Your task to perform on an android device: turn notification dots on Image 0: 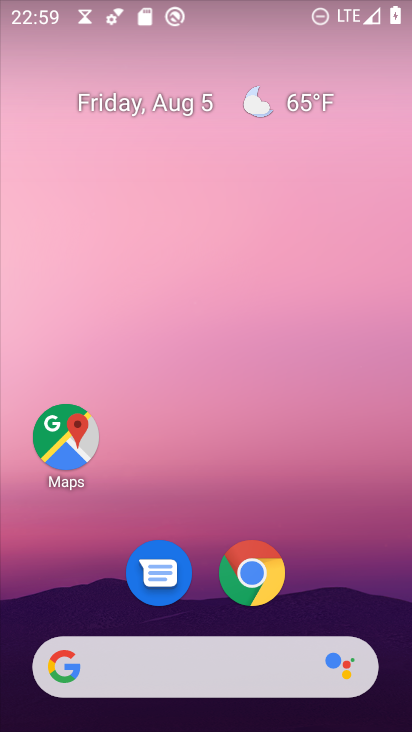
Step 0: drag from (199, 686) to (247, 46)
Your task to perform on an android device: turn notification dots on Image 1: 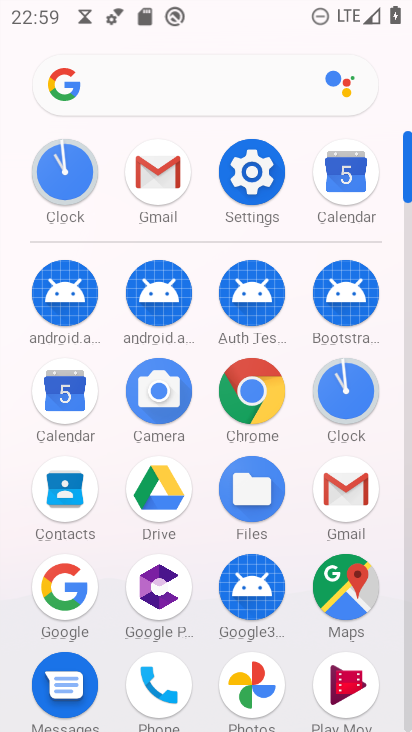
Step 1: click (252, 174)
Your task to perform on an android device: turn notification dots on Image 2: 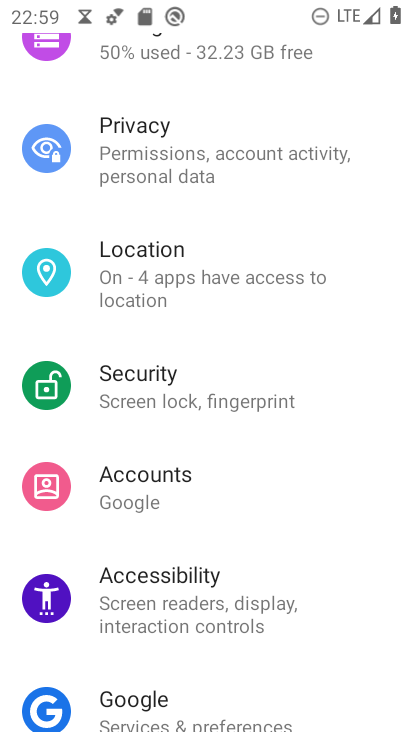
Step 2: drag from (199, 232) to (170, 444)
Your task to perform on an android device: turn notification dots on Image 3: 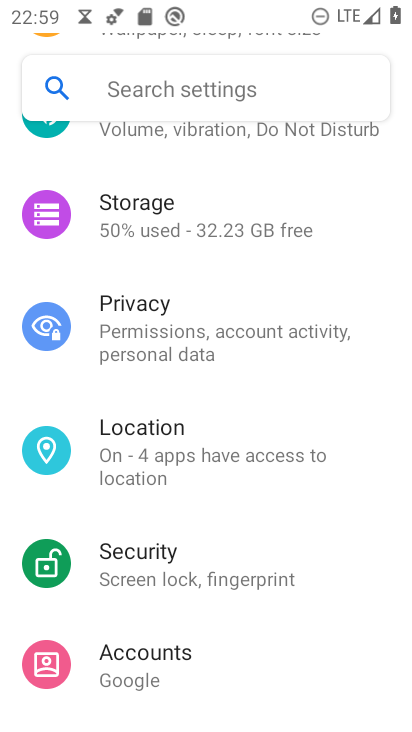
Step 3: drag from (203, 192) to (187, 410)
Your task to perform on an android device: turn notification dots on Image 4: 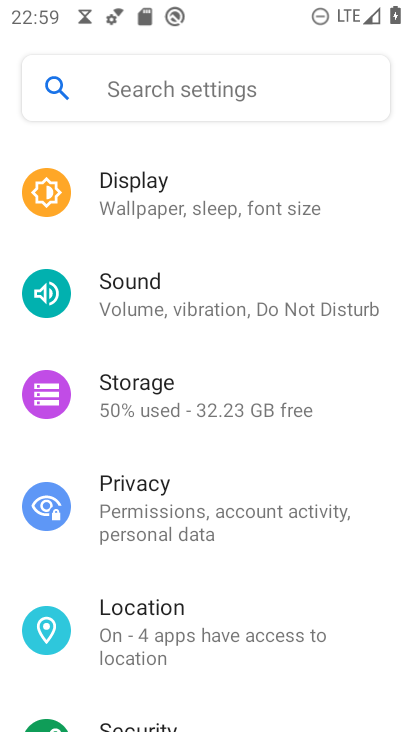
Step 4: drag from (200, 232) to (234, 392)
Your task to perform on an android device: turn notification dots on Image 5: 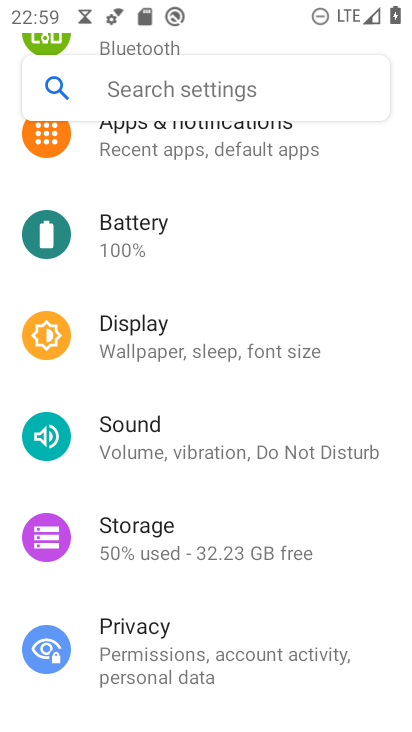
Step 5: drag from (209, 216) to (276, 389)
Your task to perform on an android device: turn notification dots on Image 6: 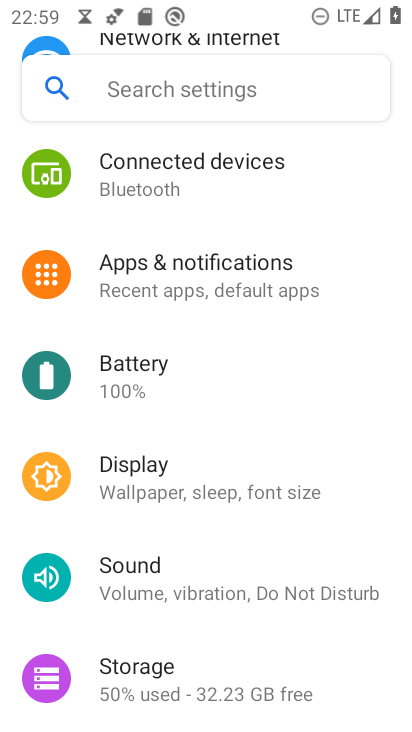
Step 6: click (239, 277)
Your task to perform on an android device: turn notification dots on Image 7: 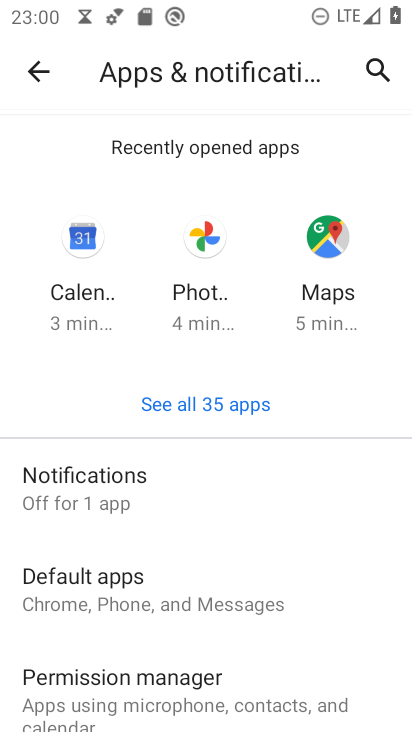
Step 7: drag from (182, 543) to (296, 411)
Your task to perform on an android device: turn notification dots on Image 8: 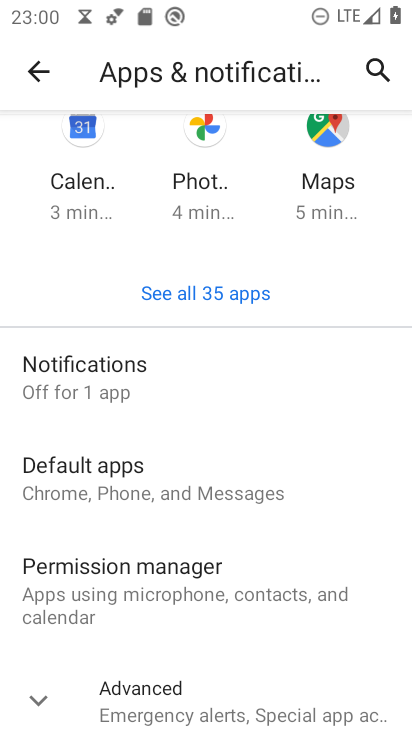
Step 8: click (113, 369)
Your task to perform on an android device: turn notification dots on Image 9: 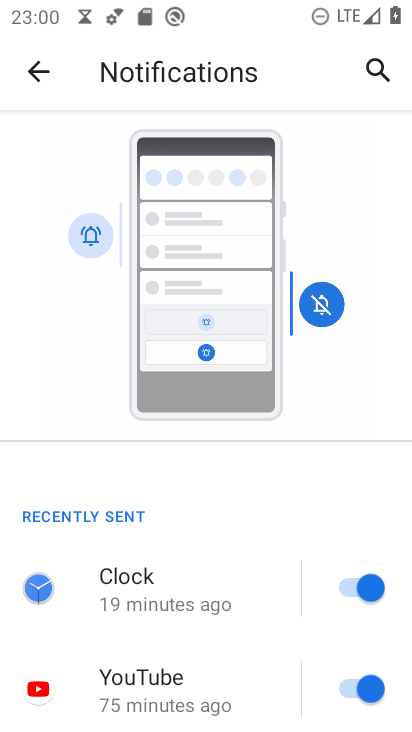
Step 9: drag from (213, 643) to (295, 455)
Your task to perform on an android device: turn notification dots on Image 10: 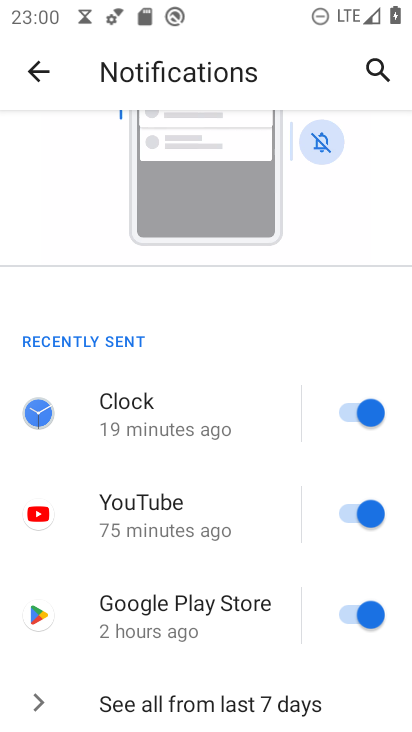
Step 10: drag from (164, 641) to (219, 422)
Your task to perform on an android device: turn notification dots on Image 11: 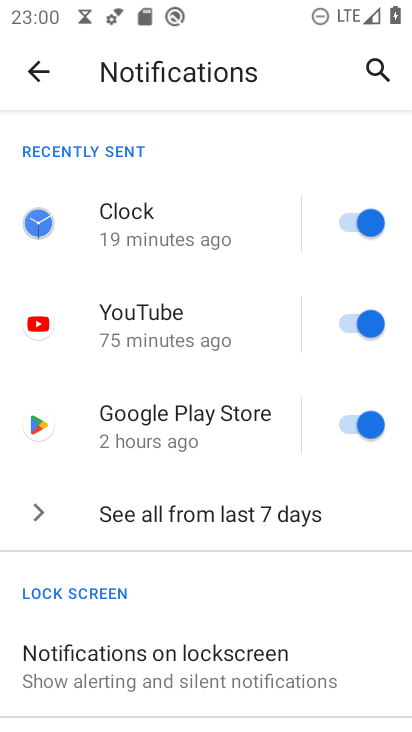
Step 11: drag from (131, 640) to (230, 511)
Your task to perform on an android device: turn notification dots on Image 12: 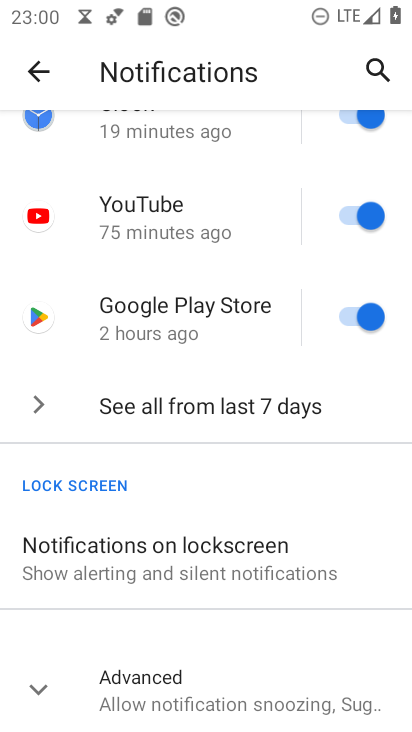
Step 12: click (168, 691)
Your task to perform on an android device: turn notification dots on Image 13: 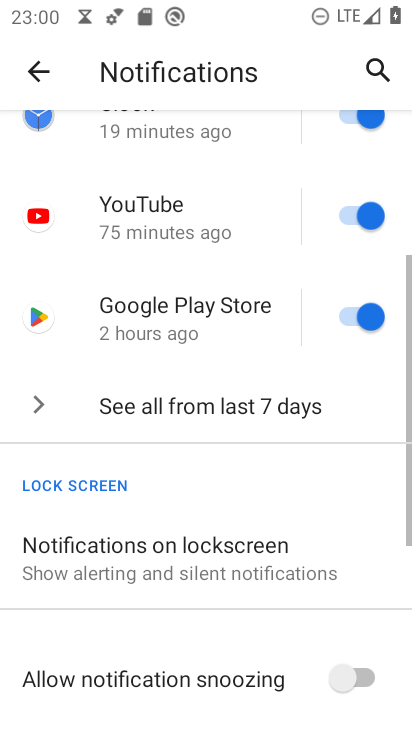
Step 13: drag from (189, 657) to (251, 470)
Your task to perform on an android device: turn notification dots on Image 14: 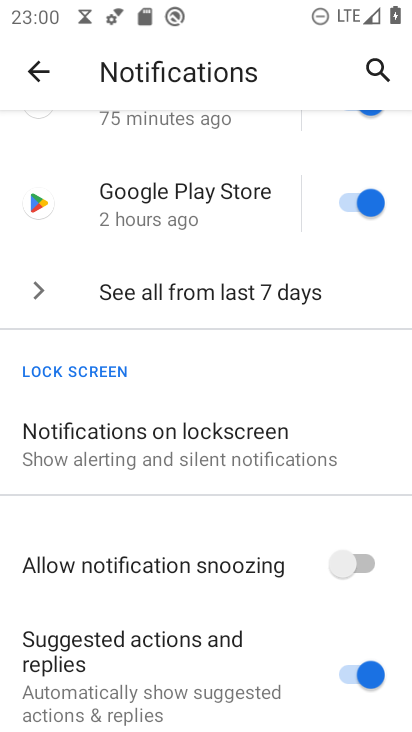
Step 14: drag from (187, 667) to (273, 509)
Your task to perform on an android device: turn notification dots on Image 15: 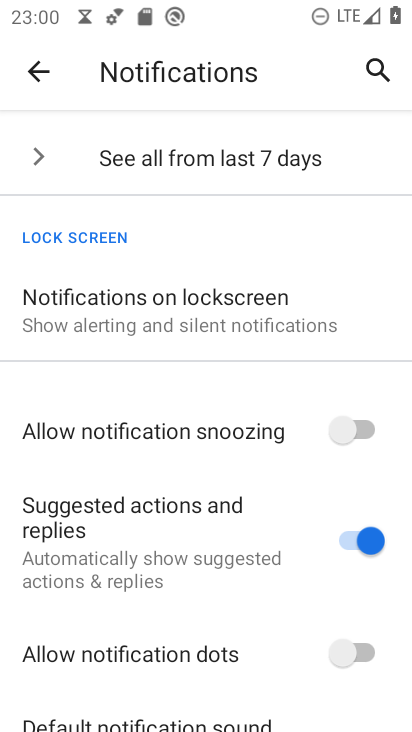
Step 15: drag from (169, 698) to (273, 557)
Your task to perform on an android device: turn notification dots on Image 16: 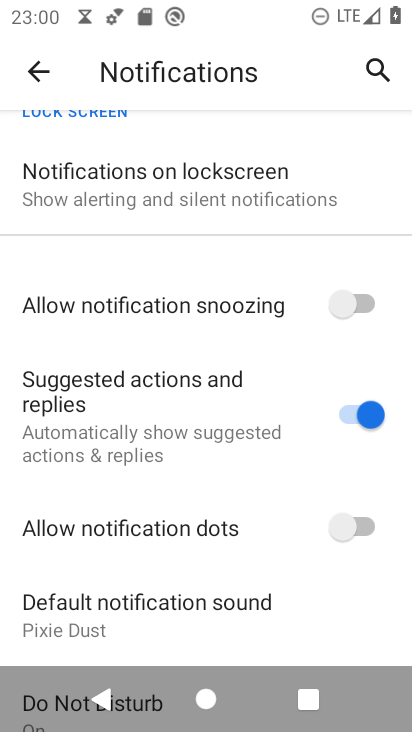
Step 16: drag from (162, 630) to (233, 498)
Your task to perform on an android device: turn notification dots on Image 17: 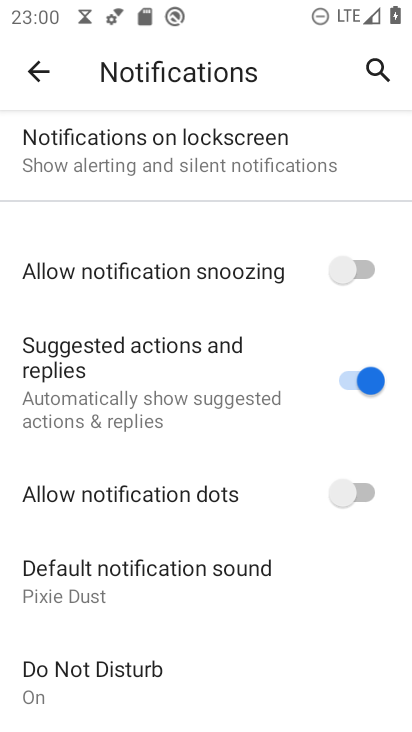
Step 17: click (350, 498)
Your task to perform on an android device: turn notification dots on Image 18: 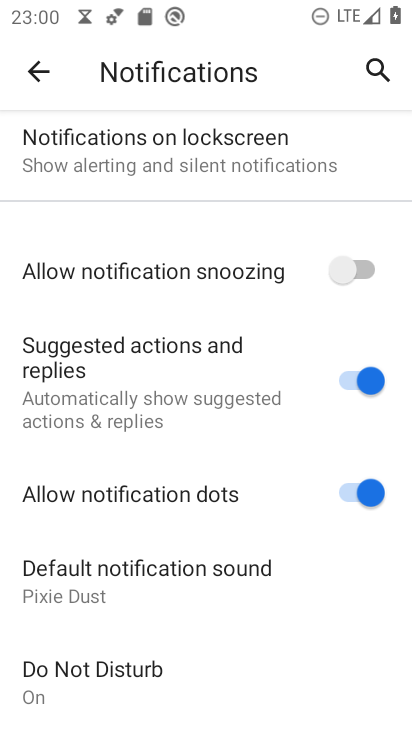
Step 18: task complete